Your task to perform on an android device: Open Google Chrome and click the shortcut for Amazon.com Image 0: 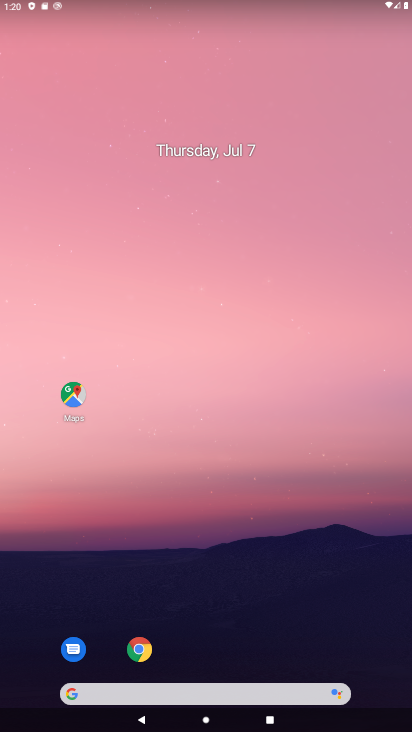
Step 0: click (139, 650)
Your task to perform on an android device: Open Google Chrome and click the shortcut for Amazon.com Image 1: 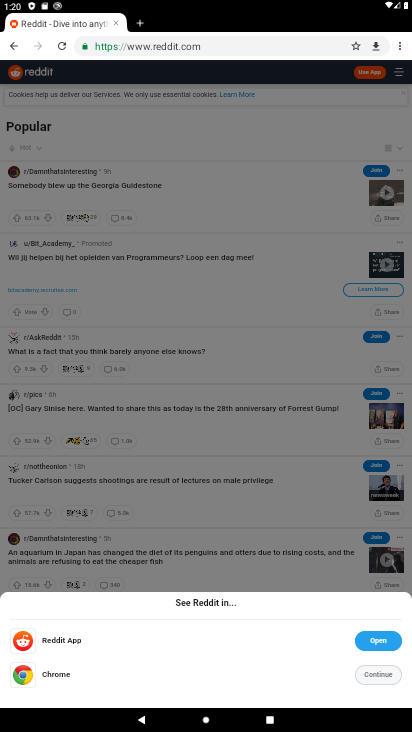
Step 1: click (397, 50)
Your task to perform on an android device: Open Google Chrome and click the shortcut for Amazon.com Image 2: 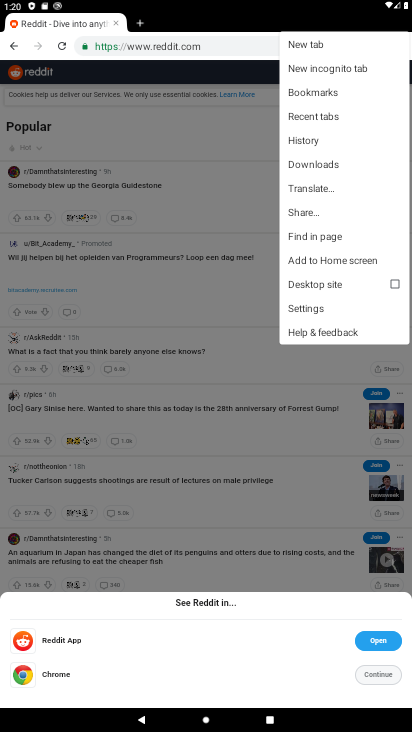
Step 2: click (308, 45)
Your task to perform on an android device: Open Google Chrome and click the shortcut for Amazon.com Image 3: 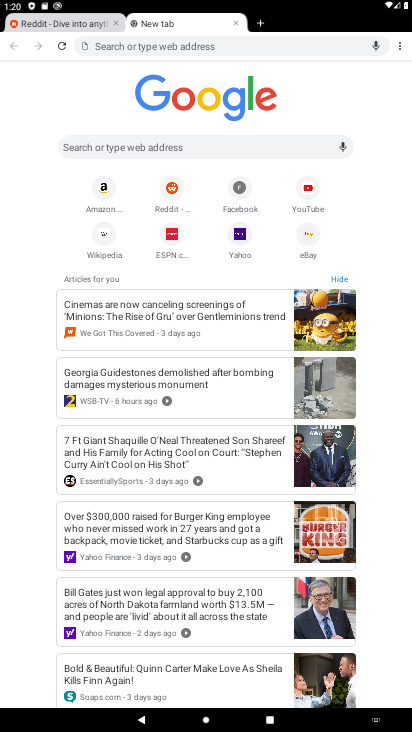
Step 3: click (103, 189)
Your task to perform on an android device: Open Google Chrome and click the shortcut for Amazon.com Image 4: 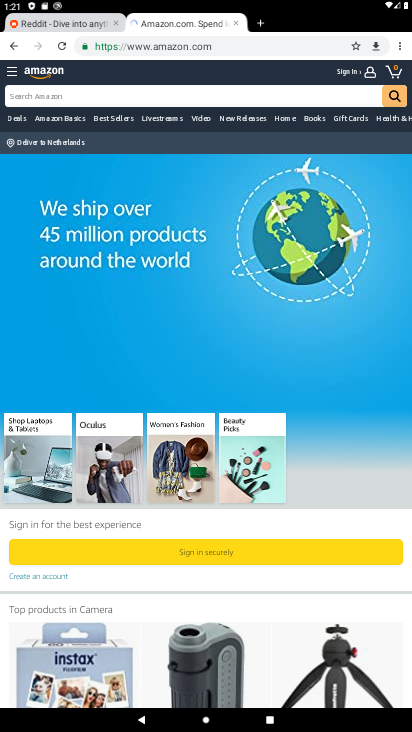
Step 4: task complete